Your task to perform on an android device: Open battery settings Image 0: 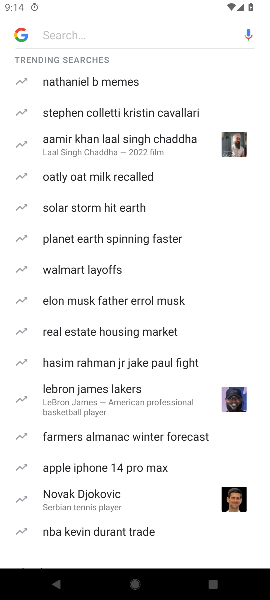
Step 0: press home button
Your task to perform on an android device: Open battery settings Image 1: 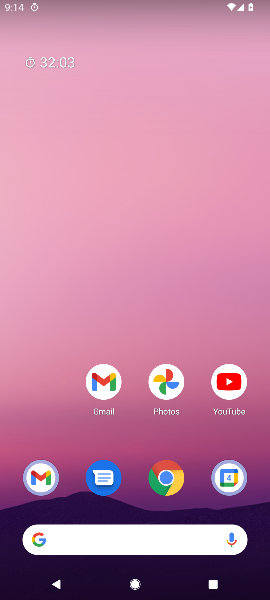
Step 1: drag from (124, 534) to (161, 220)
Your task to perform on an android device: Open battery settings Image 2: 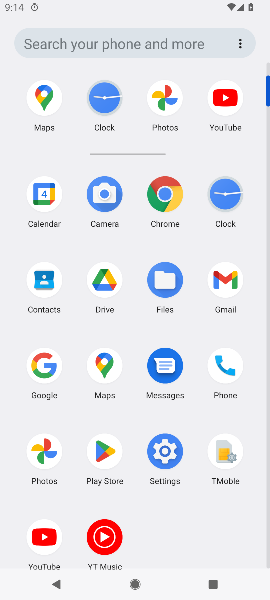
Step 2: click (181, 454)
Your task to perform on an android device: Open battery settings Image 3: 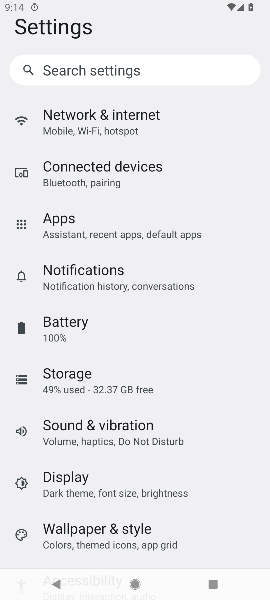
Step 3: click (56, 322)
Your task to perform on an android device: Open battery settings Image 4: 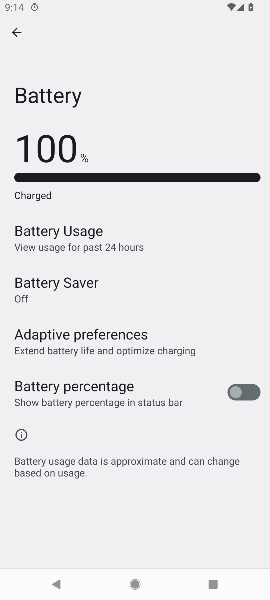
Step 4: task complete